Your task to perform on an android device: change your default location settings in chrome Image 0: 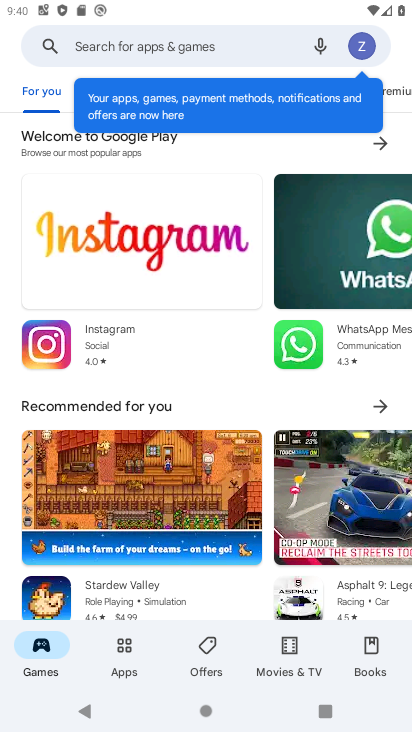
Step 0: press home button
Your task to perform on an android device: change your default location settings in chrome Image 1: 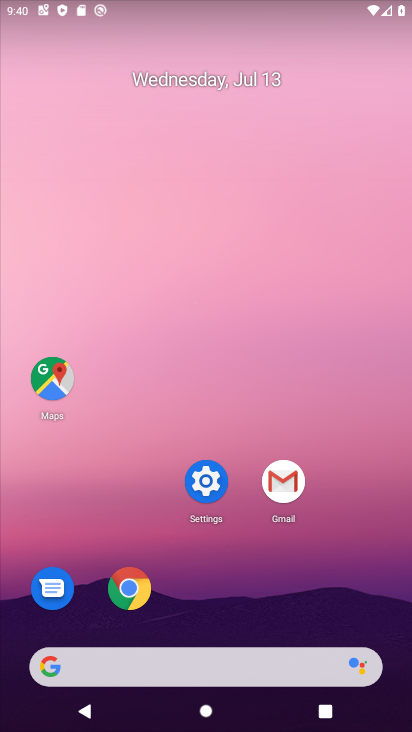
Step 1: click (128, 579)
Your task to perform on an android device: change your default location settings in chrome Image 2: 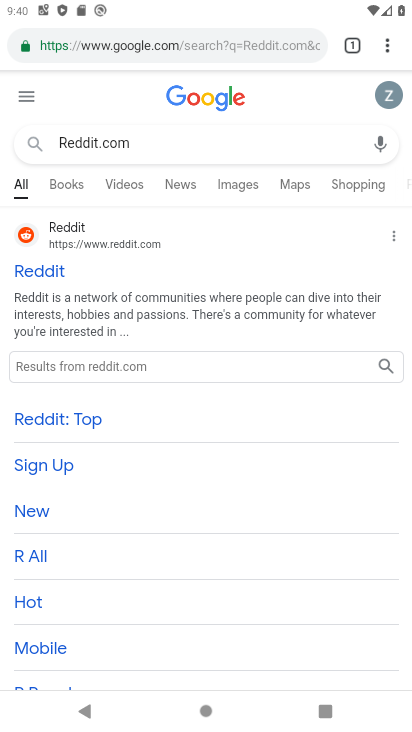
Step 2: click (387, 37)
Your task to perform on an android device: change your default location settings in chrome Image 3: 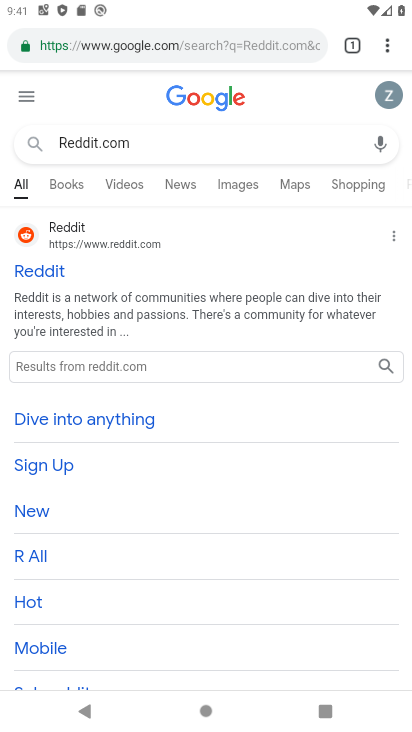
Step 3: click (389, 37)
Your task to perform on an android device: change your default location settings in chrome Image 4: 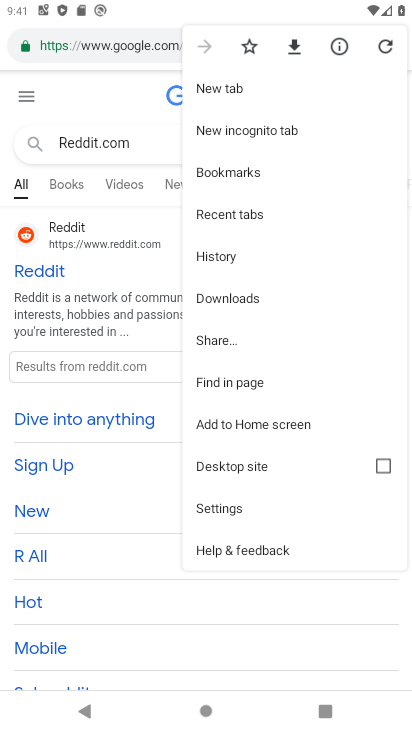
Step 4: click (227, 498)
Your task to perform on an android device: change your default location settings in chrome Image 5: 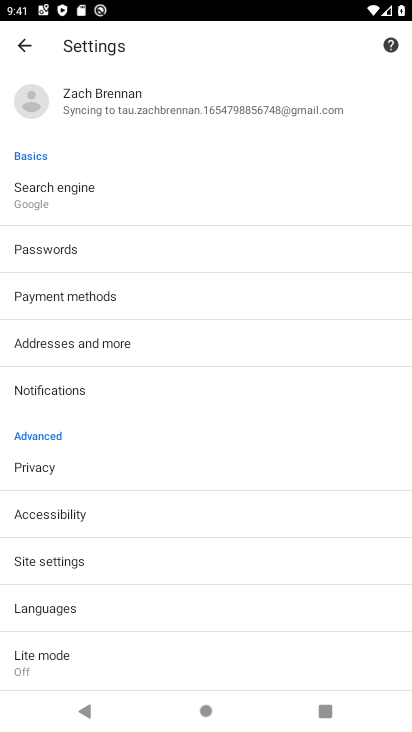
Step 5: click (67, 187)
Your task to perform on an android device: change your default location settings in chrome Image 6: 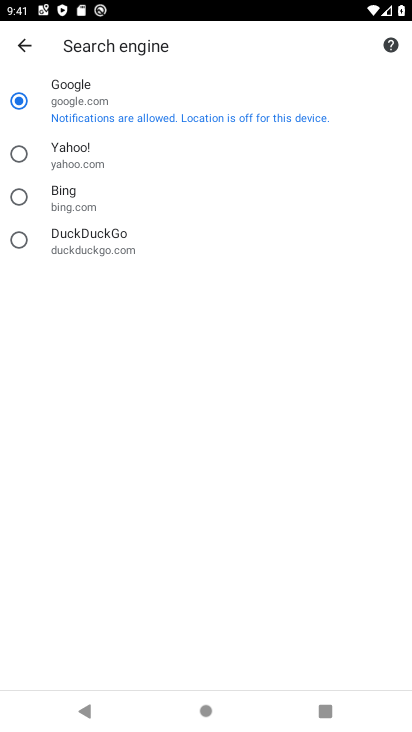
Step 6: click (22, 38)
Your task to perform on an android device: change your default location settings in chrome Image 7: 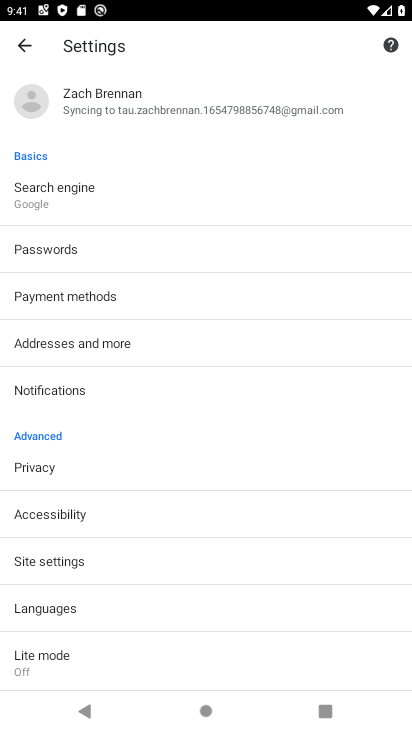
Step 7: click (47, 562)
Your task to perform on an android device: change your default location settings in chrome Image 8: 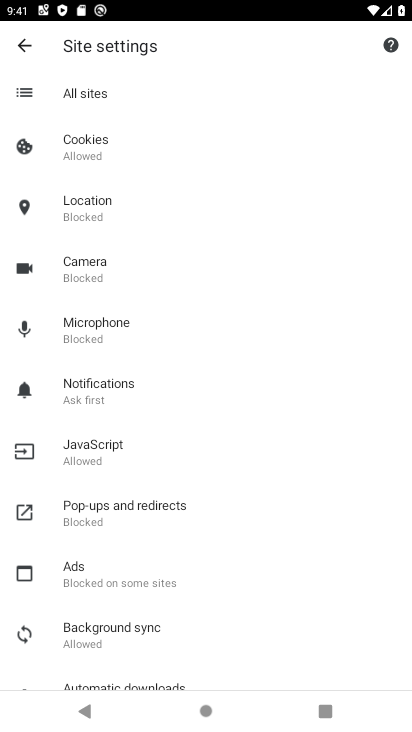
Step 8: click (84, 204)
Your task to perform on an android device: change your default location settings in chrome Image 9: 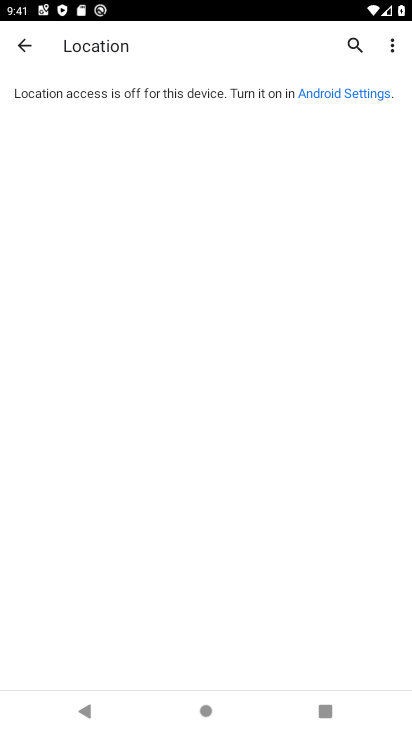
Step 9: click (18, 47)
Your task to perform on an android device: change your default location settings in chrome Image 10: 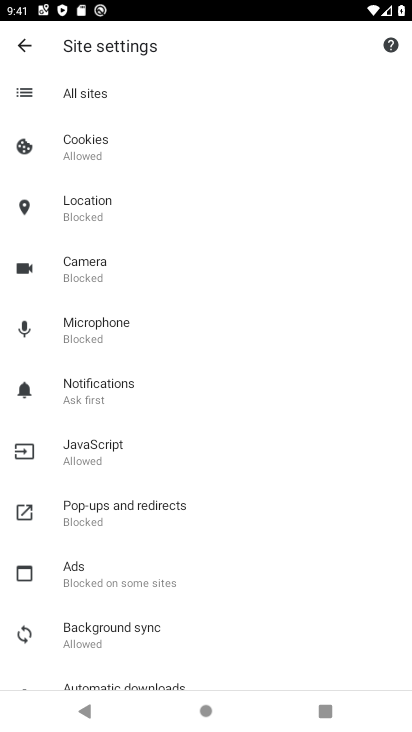
Step 10: task complete